Your task to perform on an android device: turn on the 12-hour format for clock Image 0: 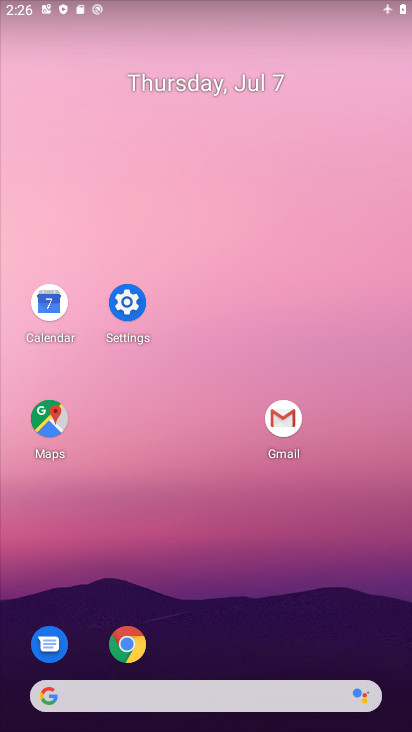
Step 0: drag from (398, 681) to (290, 99)
Your task to perform on an android device: turn on the 12-hour format for clock Image 1: 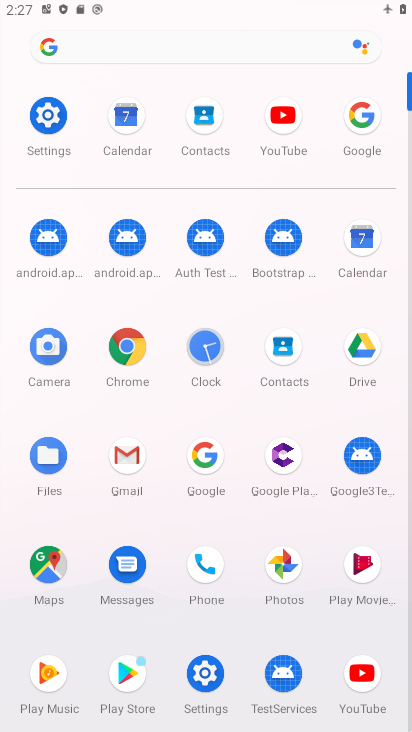
Step 1: click (203, 346)
Your task to perform on an android device: turn on the 12-hour format for clock Image 2: 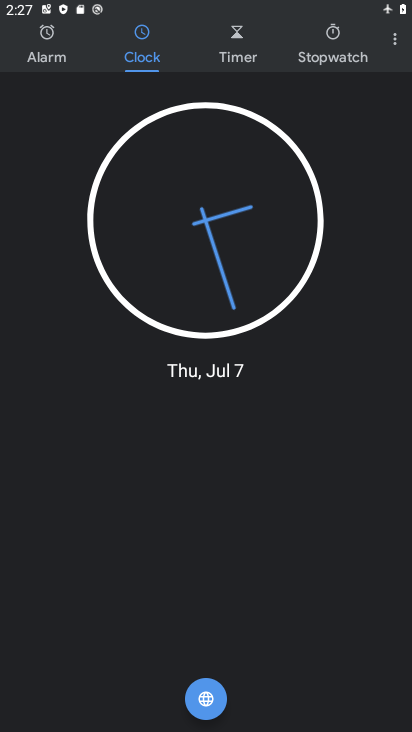
Step 2: click (396, 39)
Your task to perform on an android device: turn on the 12-hour format for clock Image 3: 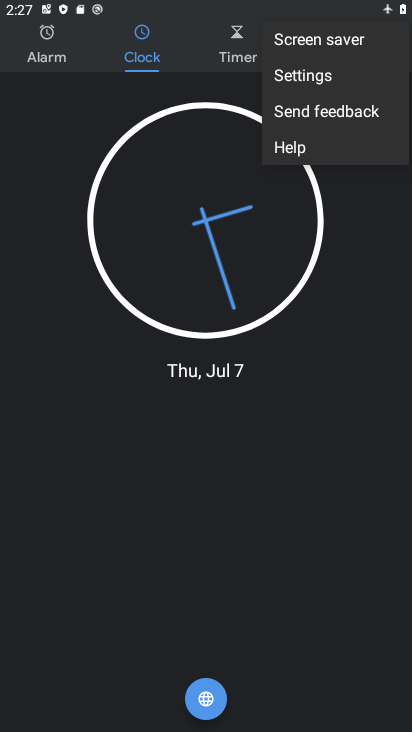
Step 3: click (285, 75)
Your task to perform on an android device: turn on the 12-hour format for clock Image 4: 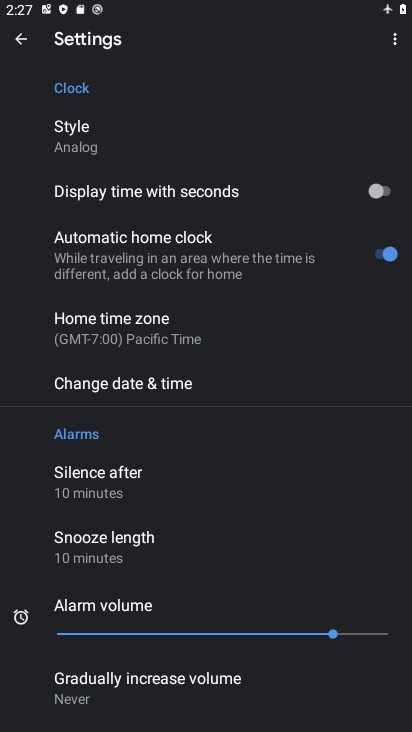
Step 4: click (129, 388)
Your task to perform on an android device: turn on the 12-hour format for clock Image 5: 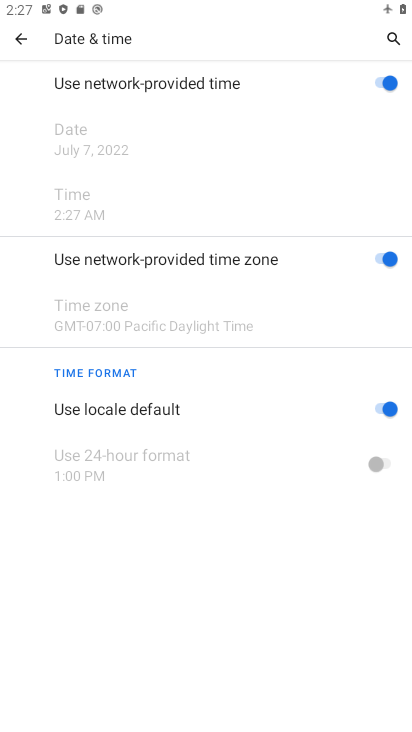
Step 5: task complete